Your task to perform on an android device: Open Amazon Image 0: 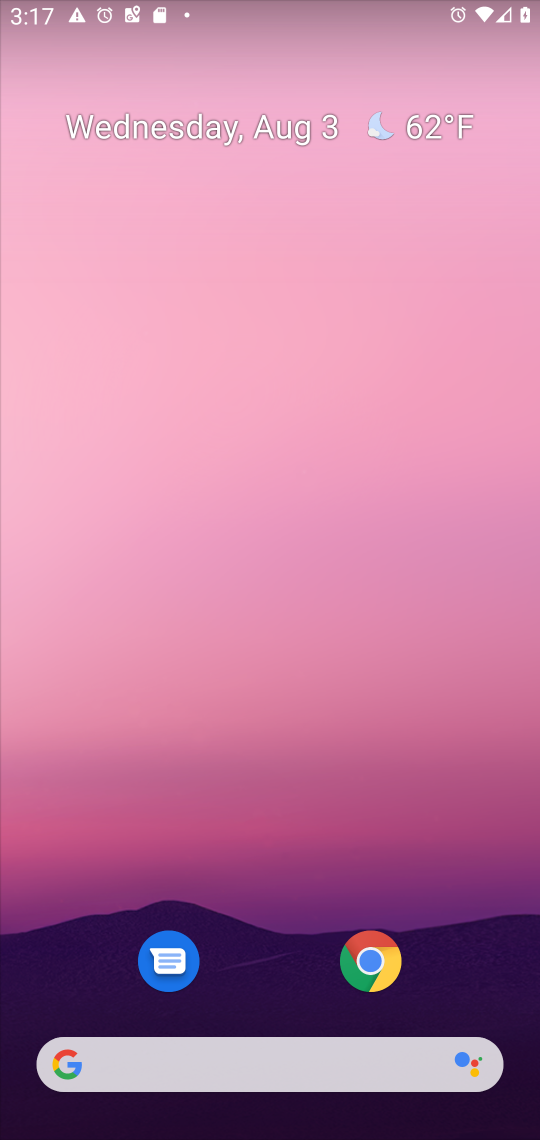
Step 0: click (379, 968)
Your task to perform on an android device: Open Amazon Image 1: 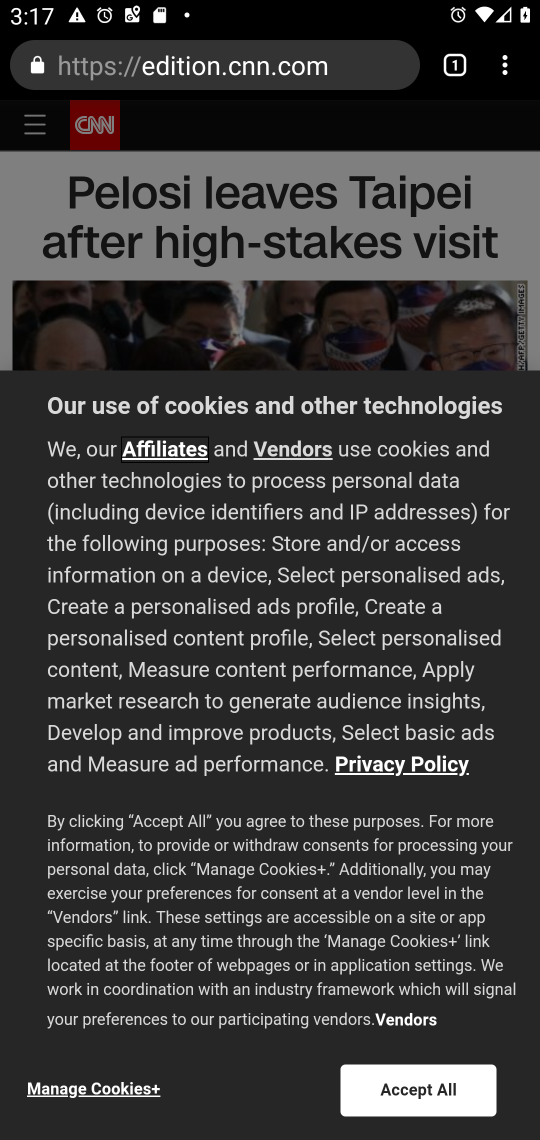
Step 1: click (187, 68)
Your task to perform on an android device: Open Amazon Image 2: 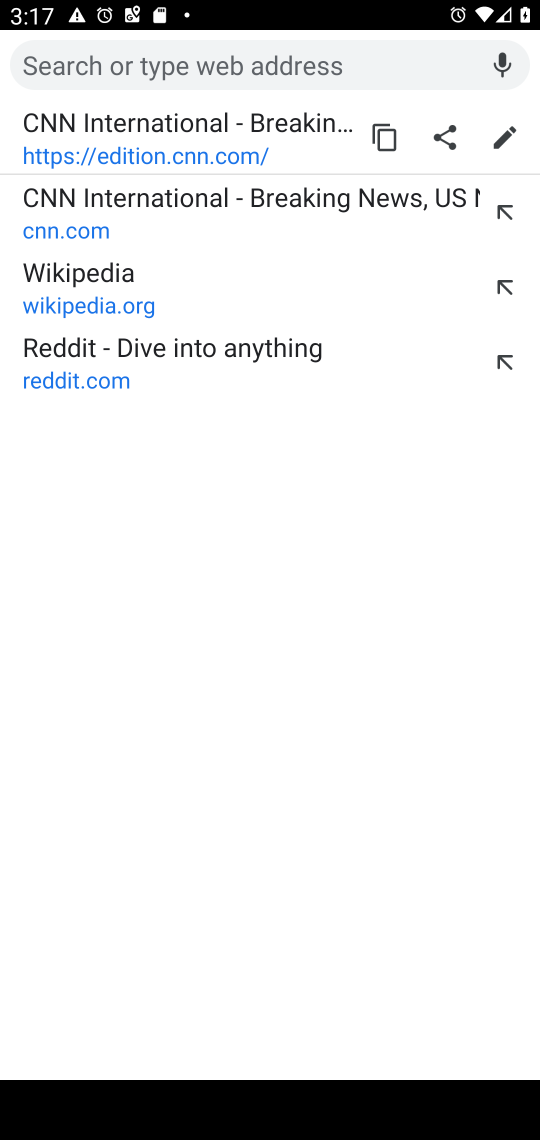
Step 2: type "amazon"
Your task to perform on an android device: Open Amazon Image 3: 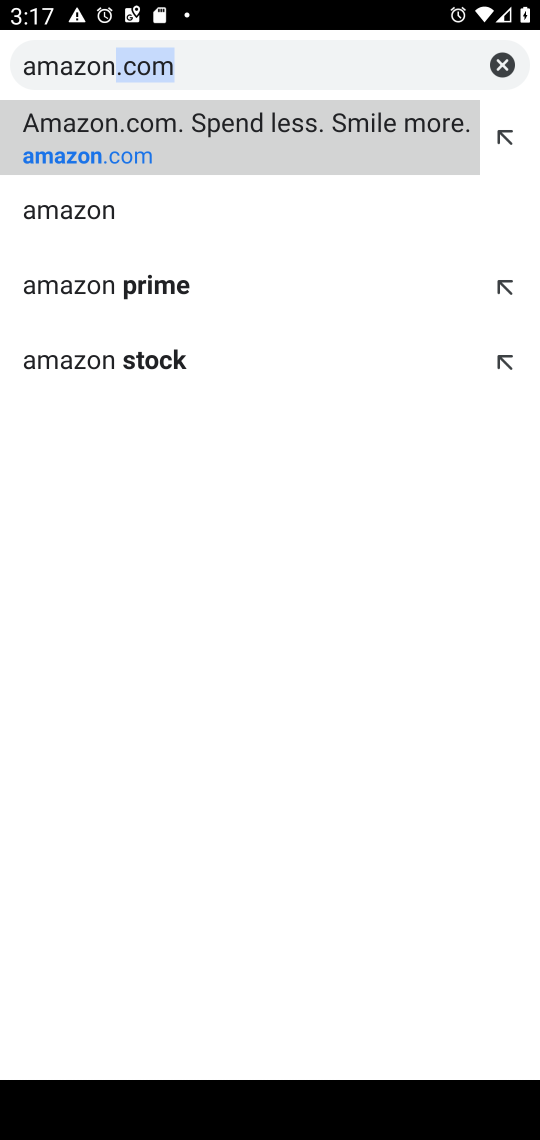
Step 3: click (91, 156)
Your task to perform on an android device: Open Amazon Image 4: 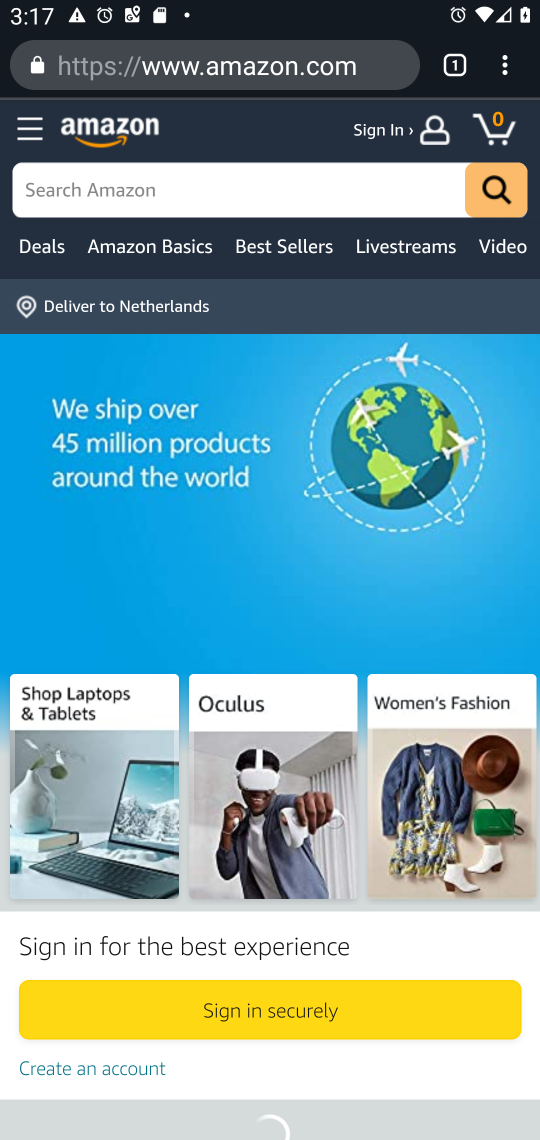
Step 4: task complete